Your task to perform on an android device: toggle pop-ups in chrome Image 0: 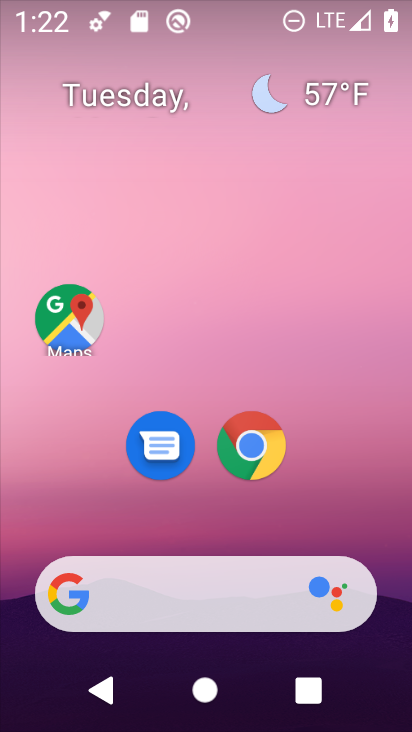
Step 0: drag from (396, 546) to (390, 135)
Your task to perform on an android device: toggle pop-ups in chrome Image 1: 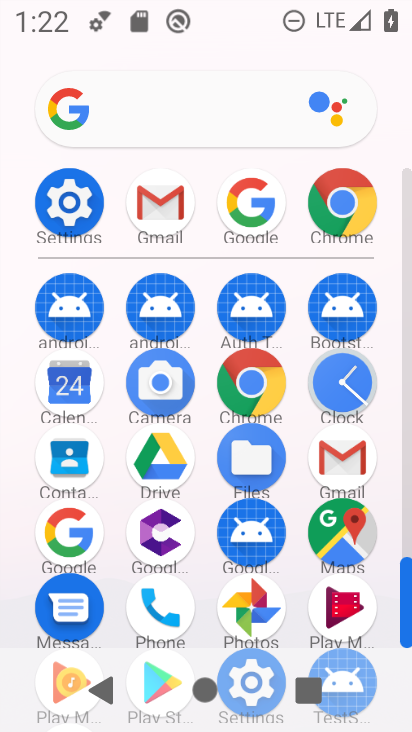
Step 1: click (264, 391)
Your task to perform on an android device: toggle pop-ups in chrome Image 2: 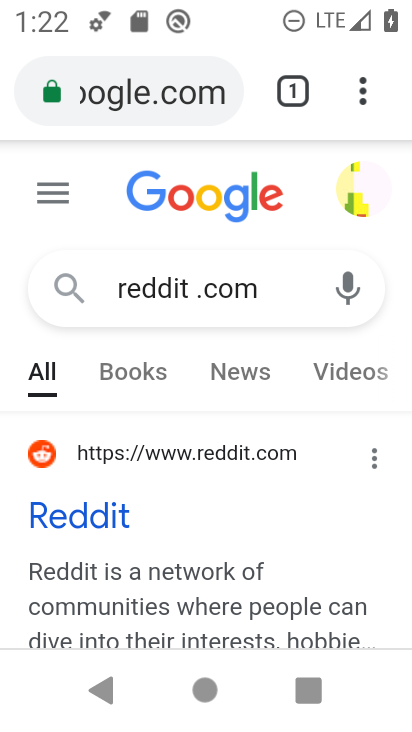
Step 2: click (367, 100)
Your task to perform on an android device: toggle pop-ups in chrome Image 3: 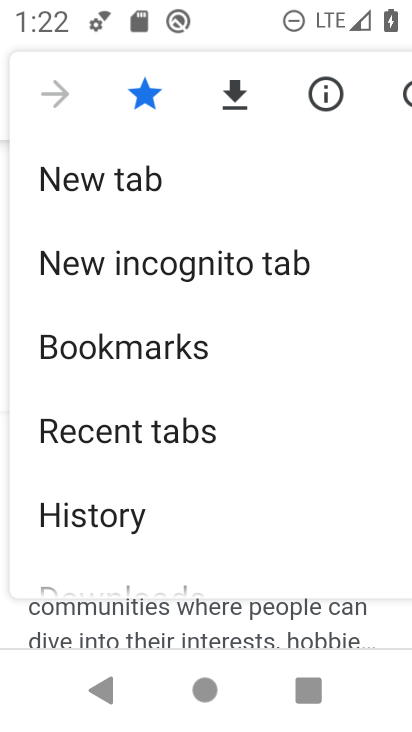
Step 3: drag from (350, 453) to (359, 351)
Your task to perform on an android device: toggle pop-ups in chrome Image 4: 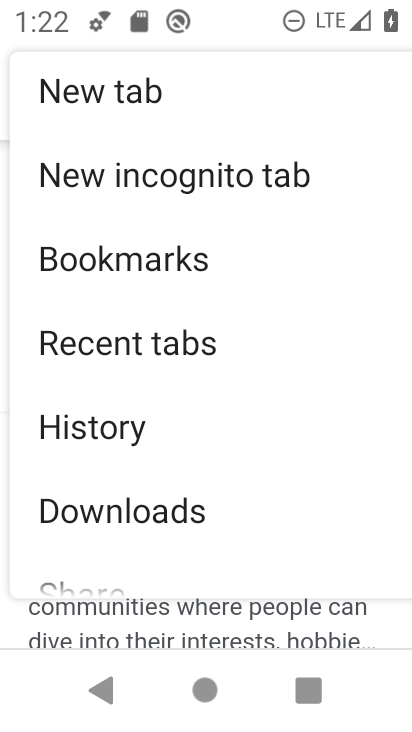
Step 4: drag from (328, 489) to (328, 368)
Your task to perform on an android device: toggle pop-ups in chrome Image 5: 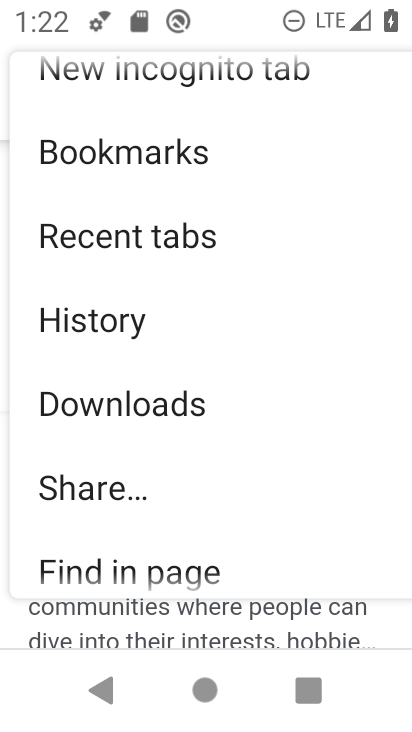
Step 5: drag from (317, 502) to (304, 393)
Your task to perform on an android device: toggle pop-ups in chrome Image 6: 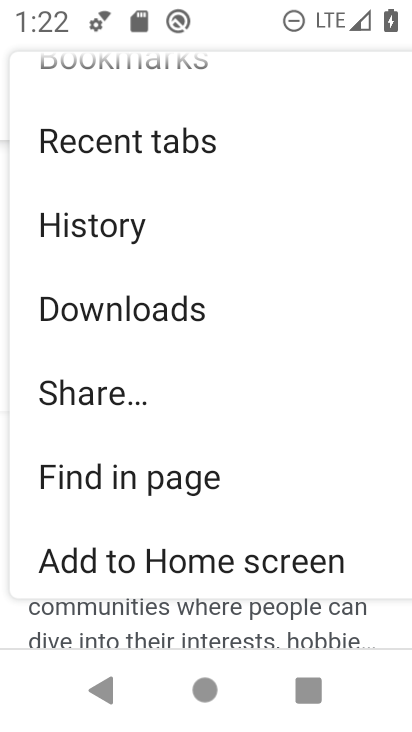
Step 6: drag from (325, 509) to (352, 371)
Your task to perform on an android device: toggle pop-ups in chrome Image 7: 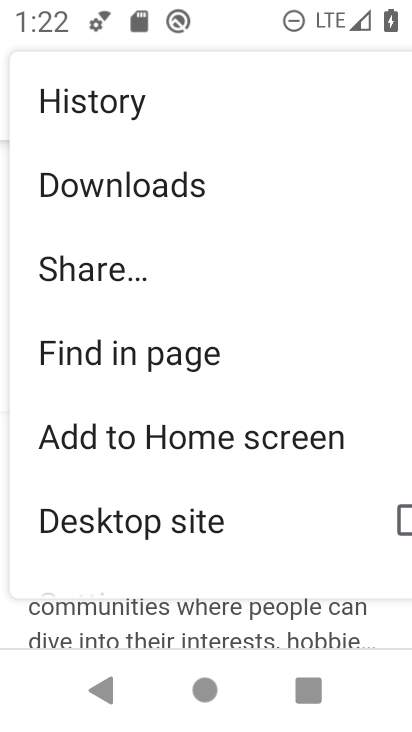
Step 7: drag from (317, 525) to (342, 333)
Your task to perform on an android device: toggle pop-ups in chrome Image 8: 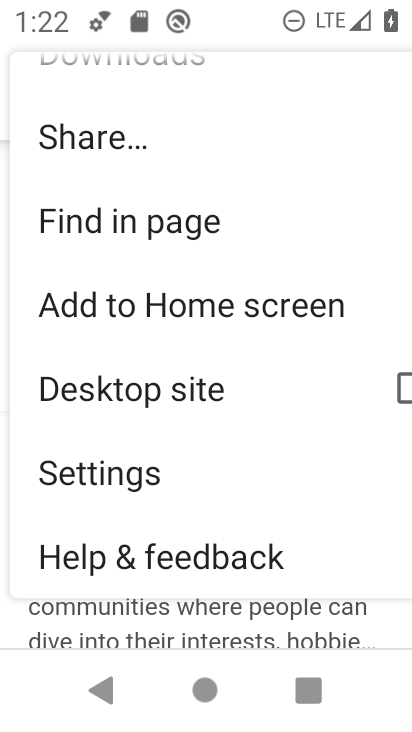
Step 8: drag from (326, 482) to (339, 345)
Your task to perform on an android device: toggle pop-ups in chrome Image 9: 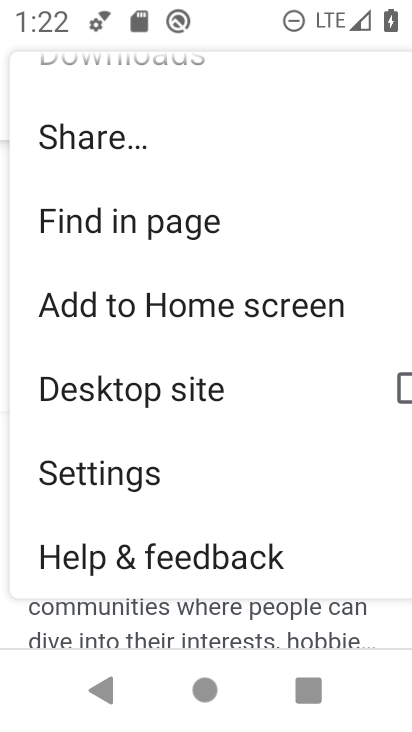
Step 9: click (191, 488)
Your task to perform on an android device: toggle pop-ups in chrome Image 10: 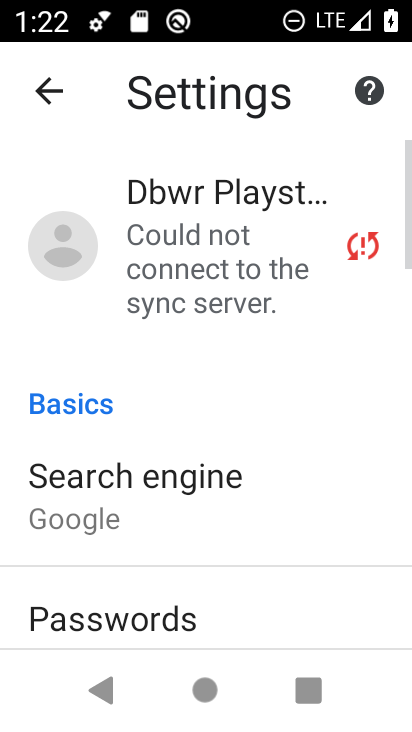
Step 10: drag from (267, 557) to (301, 444)
Your task to perform on an android device: toggle pop-ups in chrome Image 11: 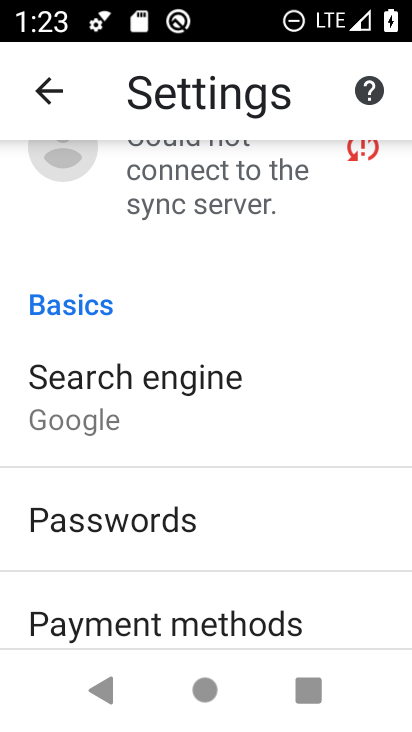
Step 11: drag from (315, 577) to (331, 451)
Your task to perform on an android device: toggle pop-ups in chrome Image 12: 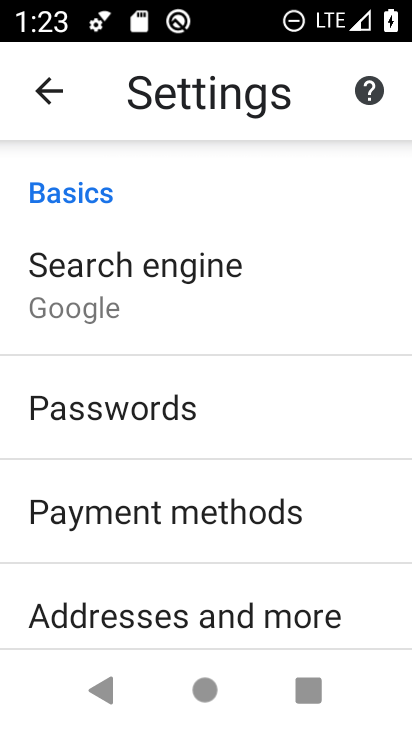
Step 12: drag from (340, 603) to (343, 503)
Your task to perform on an android device: toggle pop-ups in chrome Image 13: 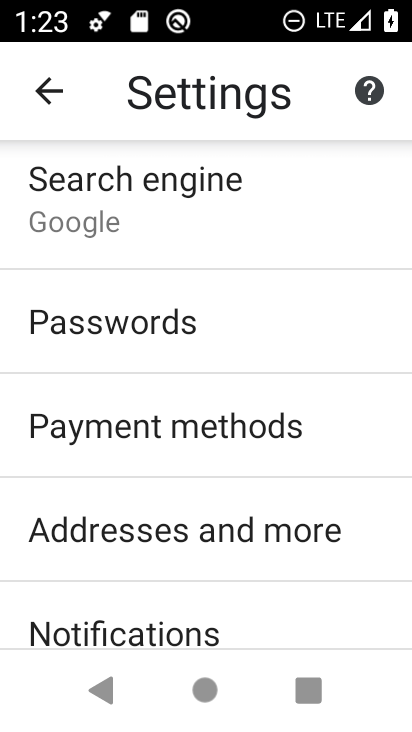
Step 13: drag from (360, 619) to (383, 451)
Your task to perform on an android device: toggle pop-ups in chrome Image 14: 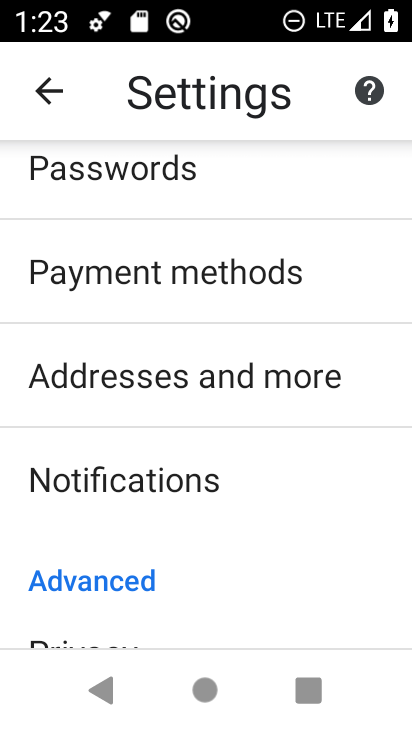
Step 14: drag from (356, 577) to (357, 446)
Your task to perform on an android device: toggle pop-ups in chrome Image 15: 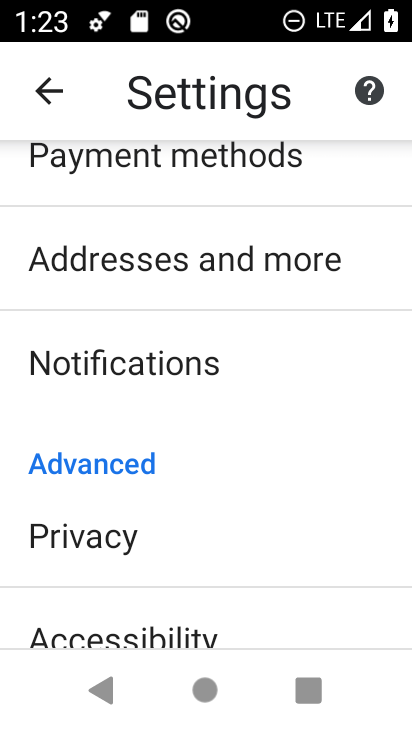
Step 15: drag from (344, 601) to (361, 442)
Your task to perform on an android device: toggle pop-ups in chrome Image 16: 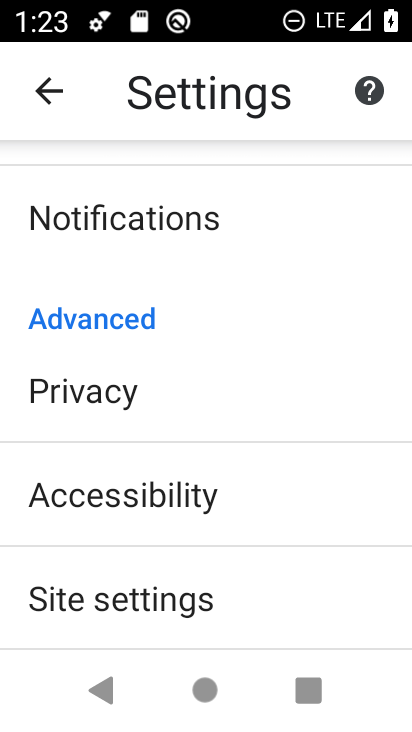
Step 16: drag from (331, 584) to (364, 453)
Your task to perform on an android device: toggle pop-ups in chrome Image 17: 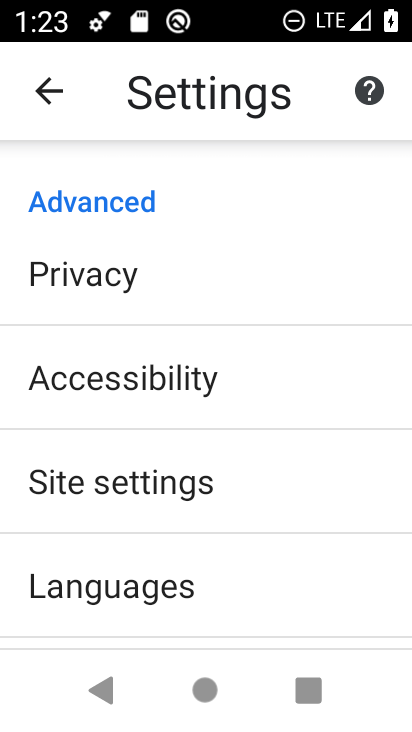
Step 17: click (343, 492)
Your task to perform on an android device: toggle pop-ups in chrome Image 18: 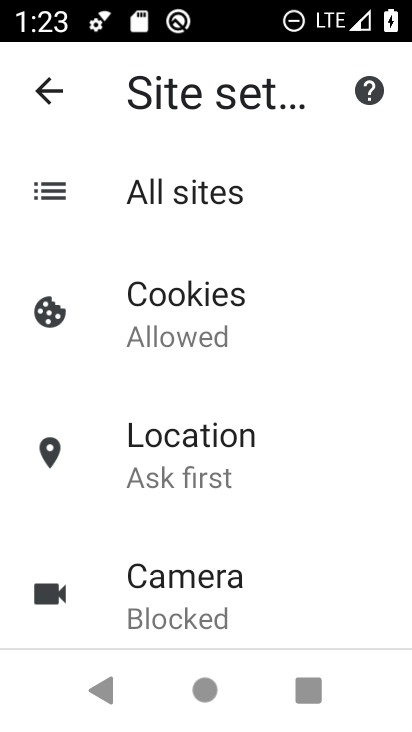
Step 18: drag from (328, 577) to (323, 423)
Your task to perform on an android device: toggle pop-ups in chrome Image 19: 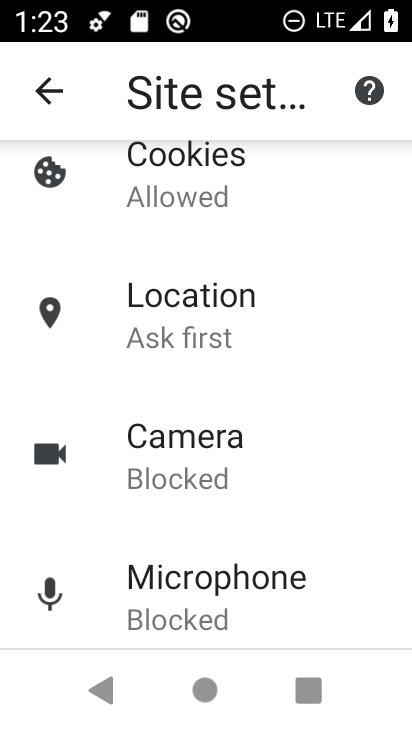
Step 19: drag from (308, 554) to (308, 455)
Your task to perform on an android device: toggle pop-ups in chrome Image 20: 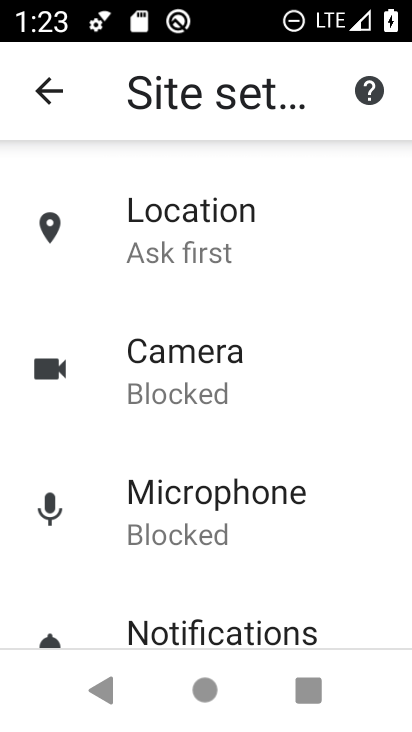
Step 20: drag from (334, 583) to (349, 446)
Your task to perform on an android device: toggle pop-ups in chrome Image 21: 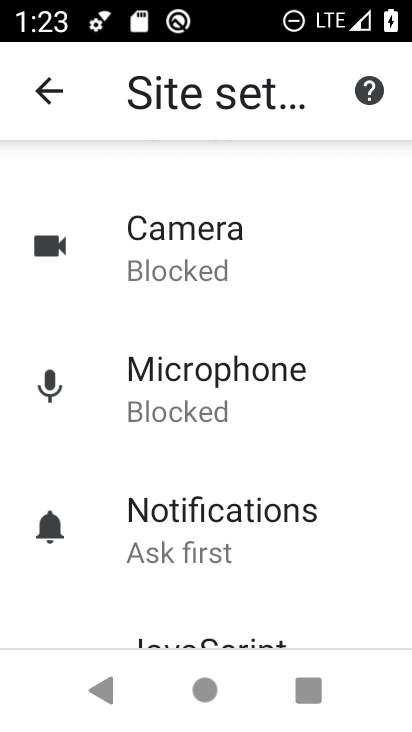
Step 21: drag from (355, 596) to (369, 417)
Your task to perform on an android device: toggle pop-ups in chrome Image 22: 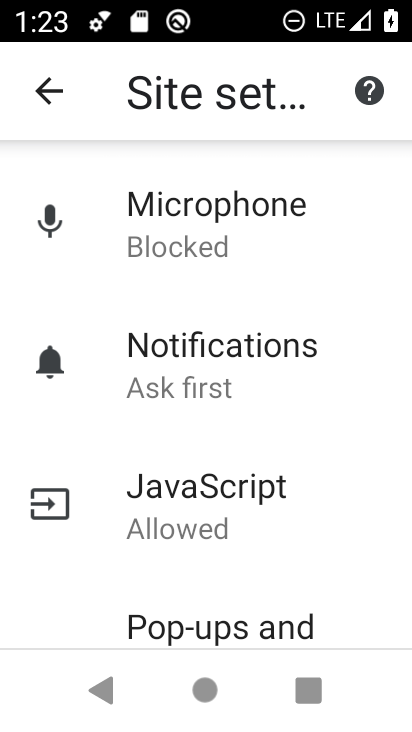
Step 22: drag from (372, 572) to (368, 389)
Your task to perform on an android device: toggle pop-ups in chrome Image 23: 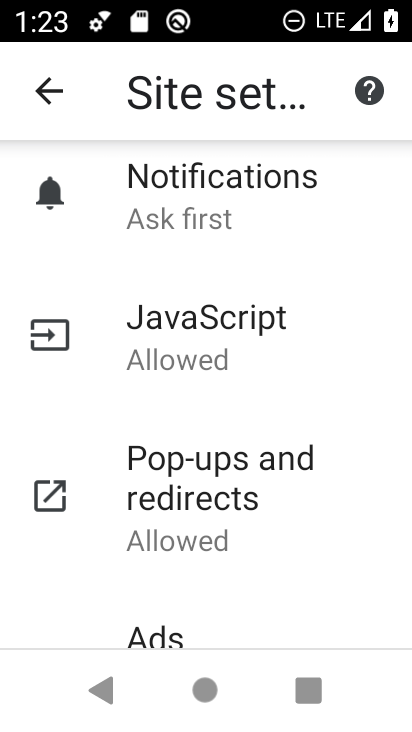
Step 23: click (245, 502)
Your task to perform on an android device: toggle pop-ups in chrome Image 24: 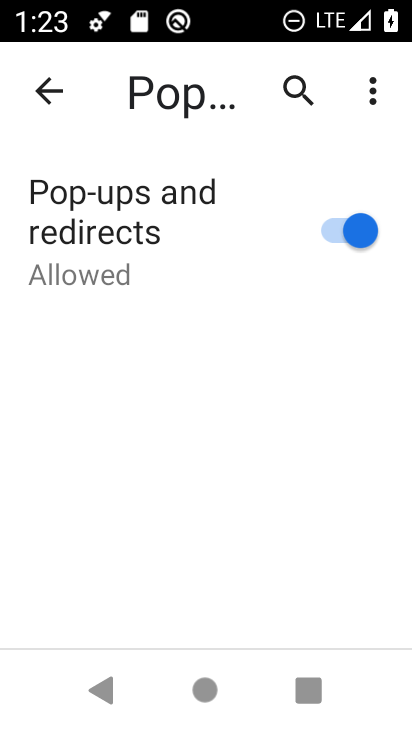
Step 24: click (364, 234)
Your task to perform on an android device: toggle pop-ups in chrome Image 25: 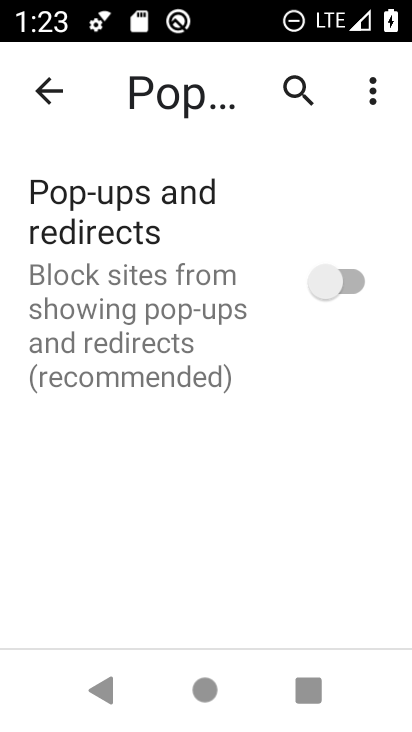
Step 25: task complete